Your task to perform on an android device: turn off wifi Image 0: 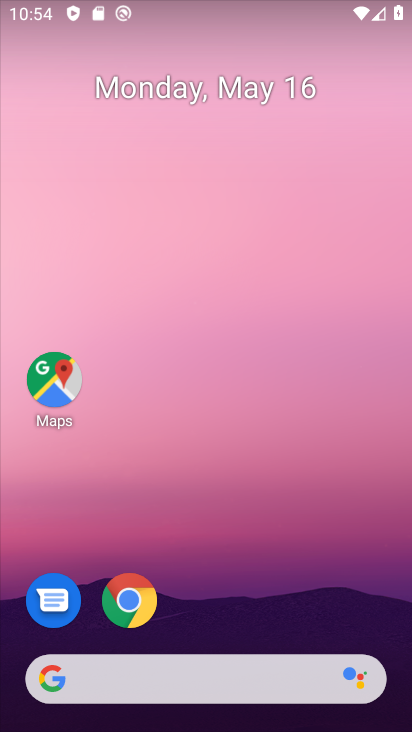
Step 0: drag from (184, 612) to (187, 184)
Your task to perform on an android device: turn off wifi Image 1: 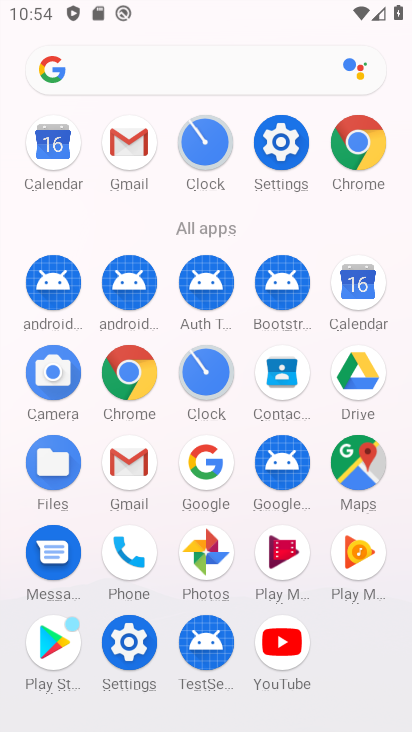
Step 1: click (275, 146)
Your task to perform on an android device: turn off wifi Image 2: 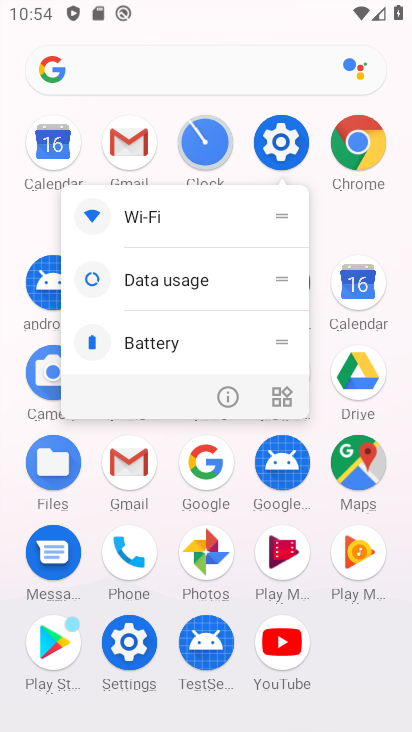
Step 2: click (276, 140)
Your task to perform on an android device: turn off wifi Image 3: 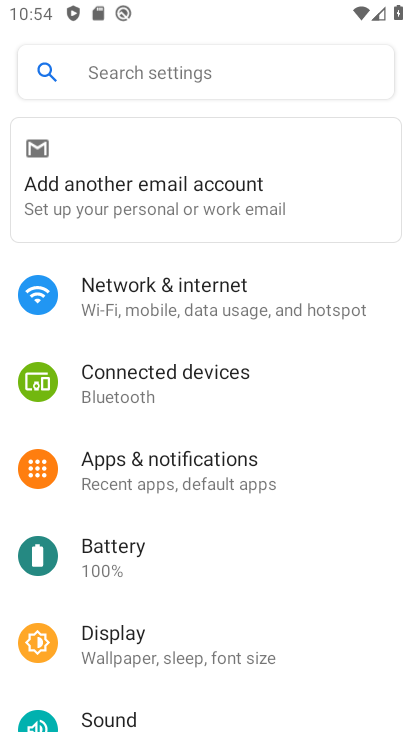
Step 3: click (283, 139)
Your task to perform on an android device: turn off wifi Image 4: 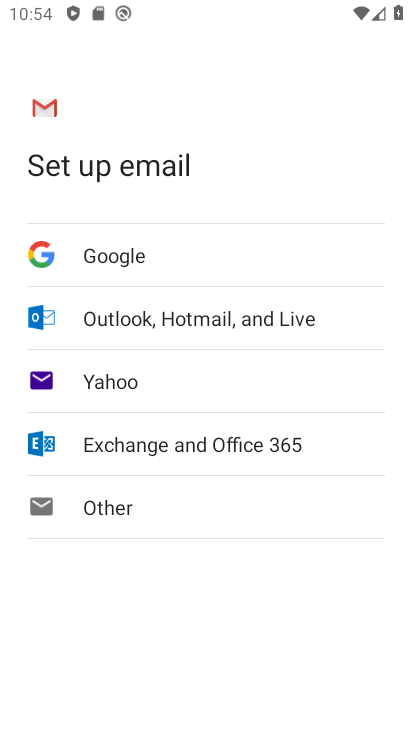
Step 4: press home button
Your task to perform on an android device: turn off wifi Image 5: 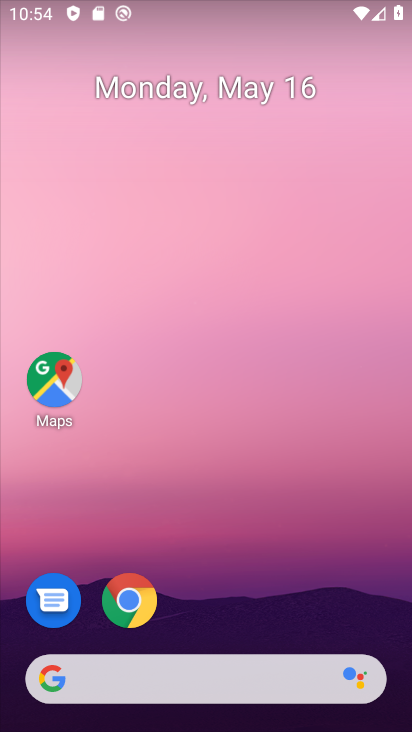
Step 5: drag from (230, 516) to (231, 178)
Your task to perform on an android device: turn off wifi Image 6: 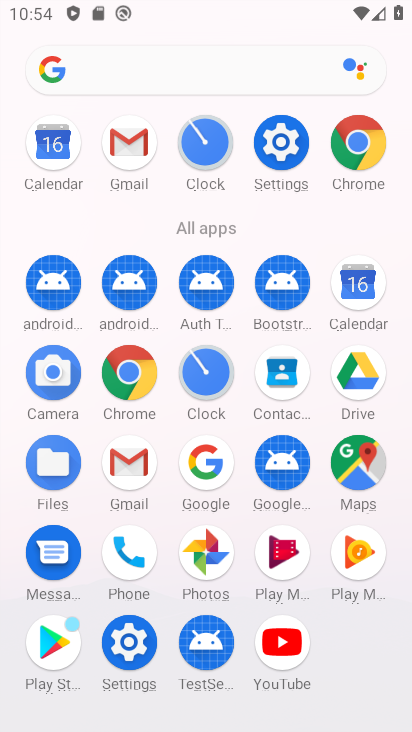
Step 6: click (282, 233)
Your task to perform on an android device: turn off wifi Image 7: 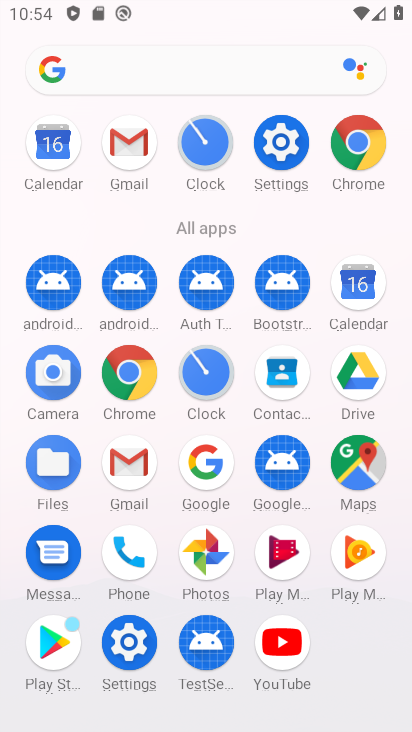
Step 7: click (271, 161)
Your task to perform on an android device: turn off wifi Image 8: 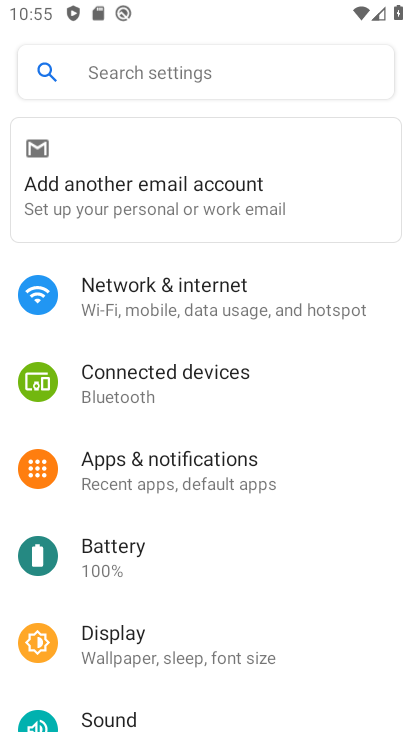
Step 8: click (172, 301)
Your task to perform on an android device: turn off wifi Image 9: 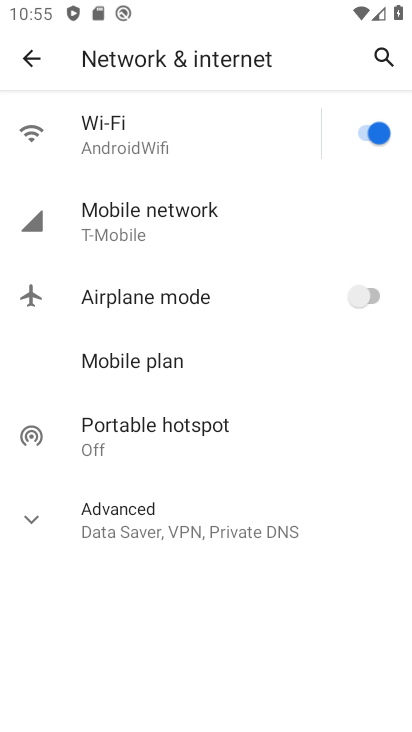
Step 9: click (372, 141)
Your task to perform on an android device: turn off wifi Image 10: 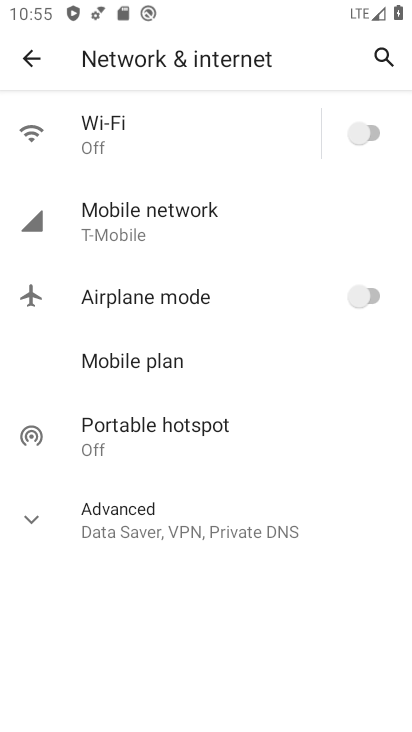
Step 10: task complete